Your task to perform on an android device: What's the weather? Image 0: 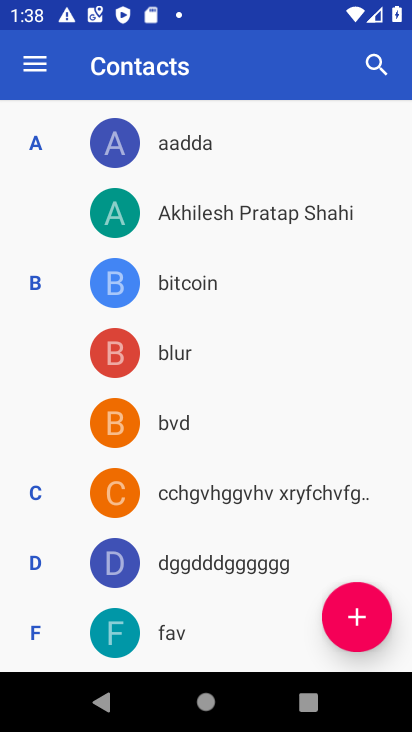
Step 0: press home button
Your task to perform on an android device: What's the weather? Image 1: 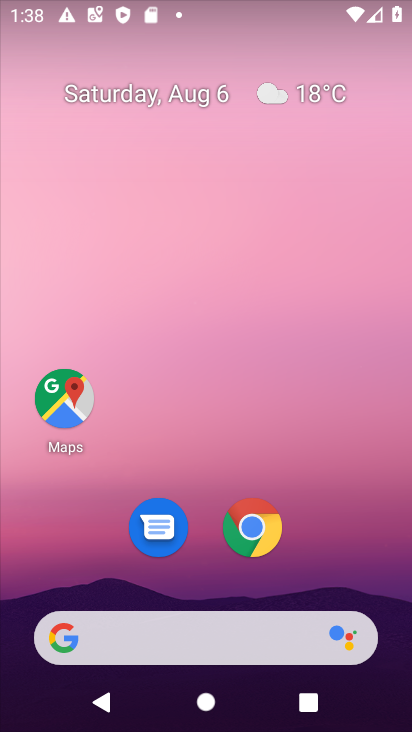
Step 1: drag from (228, 494) to (200, 141)
Your task to perform on an android device: What's the weather? Image 2: 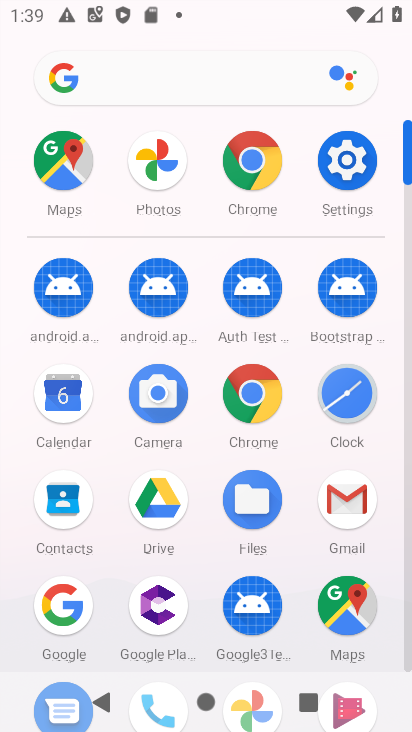
Step 2: drag from (197, 243) to (183, 61)
Your task to perform on an android device: What's the weather? Image 3: 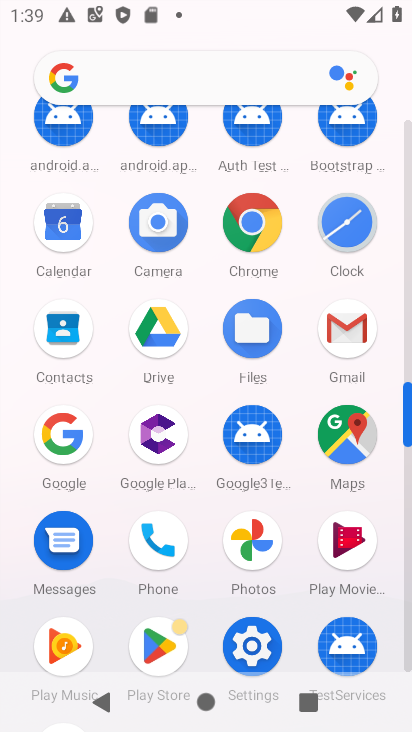
Step 3: click (242, 231)
Your task to perform on an android device: What's the weather? Image 4: 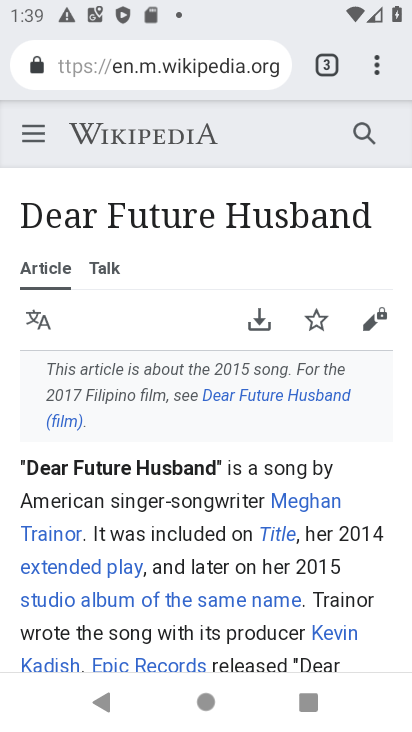
Step 4: click (339, 70)
Your task to perform on an android device: What's the weather? Image 5: 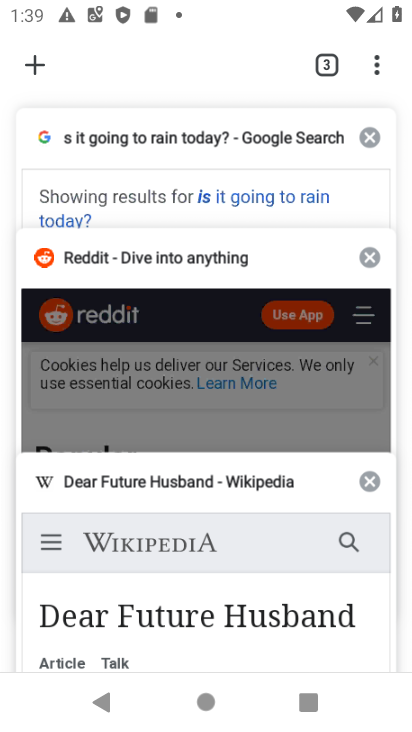
Step 5: click (120, 175)
Your task to perform on an android device: What's the weather? Image 6: 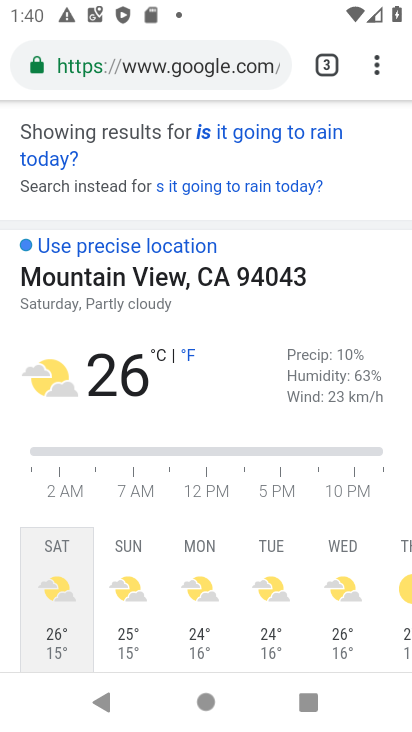
Step 6: task complete